Your task to perform on an android device: turn off notifications settings in the gmail app Image 0: 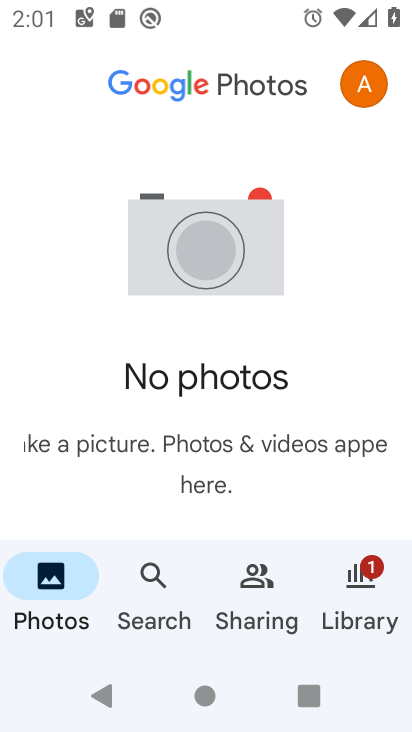
Step 0: press home button
Your task to perform on an android device: turn off notifications settings in the gmail app Image 1: 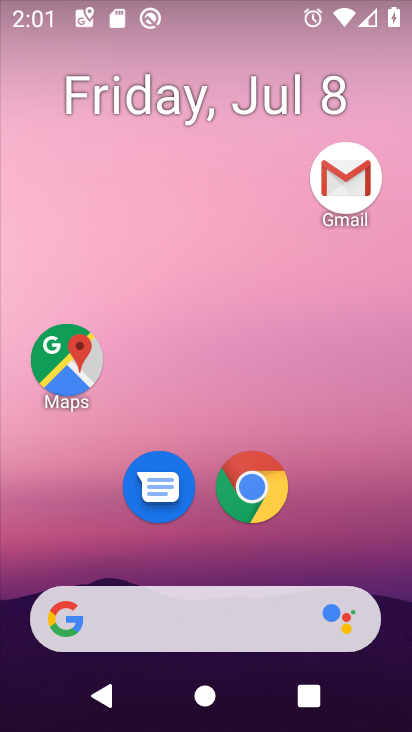
Step 1: drag from (360, 531) to (359, 107)
Your task to perform on an android device: turn off notifications settings in the gmail app Image 2: 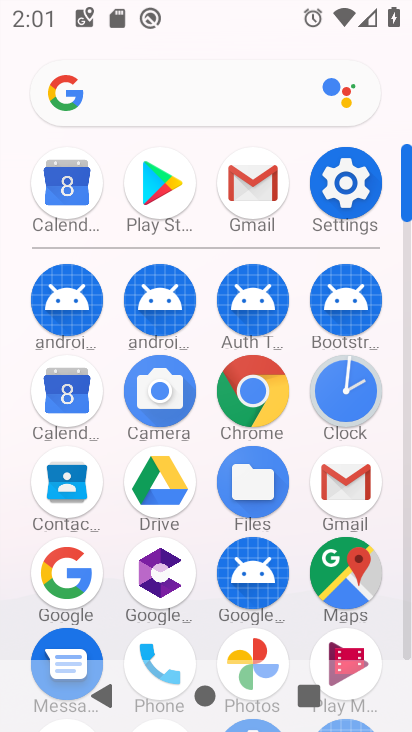
Step 2: click (348, 469)
Your task to perform on an android device: turn off notifications settings in the gmail app Image 3: 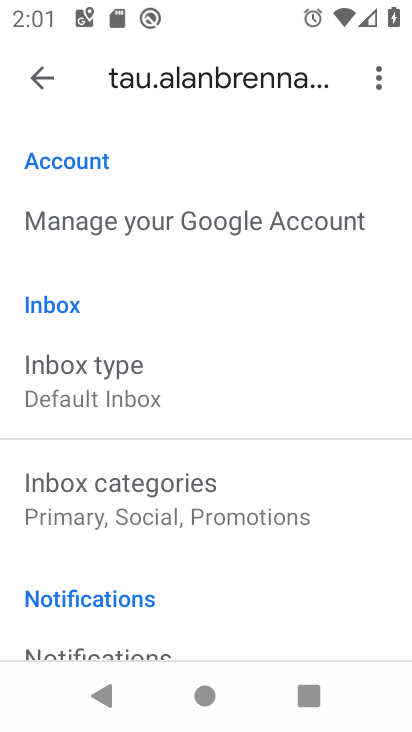
Step 3: drag from (345, 496) to (351, 390)
Your task to perform on an android device: turn off notifications settings in the gmail app Image 4: 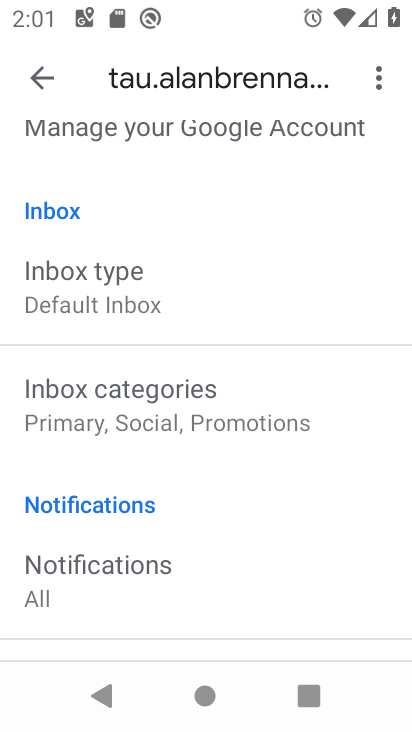
Step 4: drag from (368, 501) to (369, 407)
Your task to perform on an android device: turn off notifications settings in the gmail app Image 5: 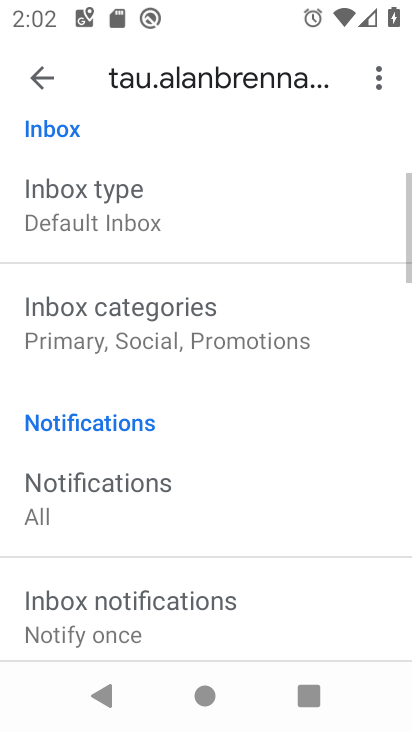
Step 5: drag from (353, 504) to (344, 404)
Your task to perform on an android device: turn off notifications settings in the gmail app Image 6: 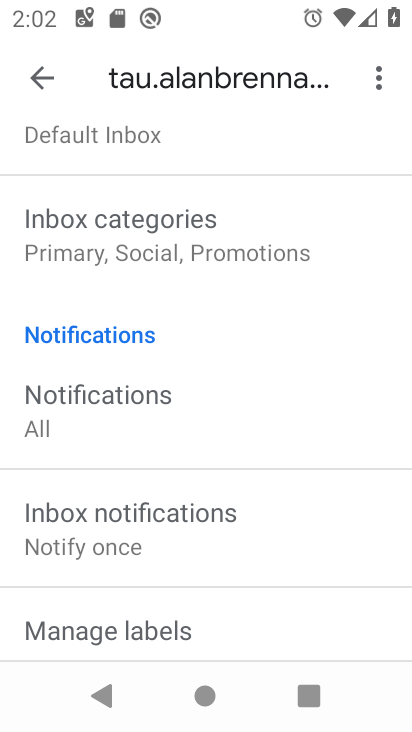
Step 6: drag from (343, 542) to (341, 471)
Your task to perform on an android device: turn off notifications settings in the gmail app Image 7: 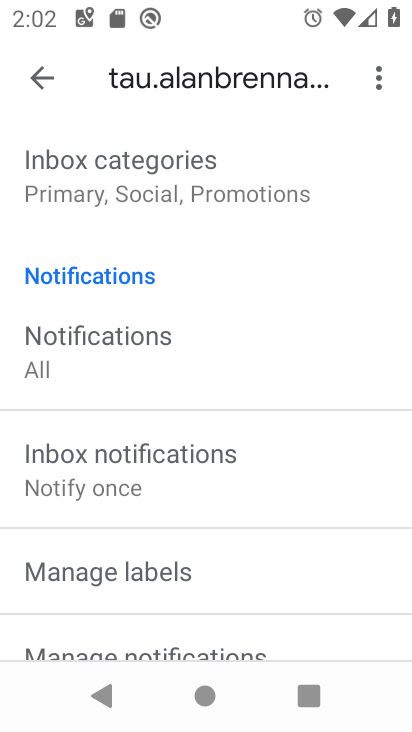
Step 7: drag from (337, 556) to (339, 453)
Your task to perform on an android device: turn off notifications settings in the gmail app Image 8: 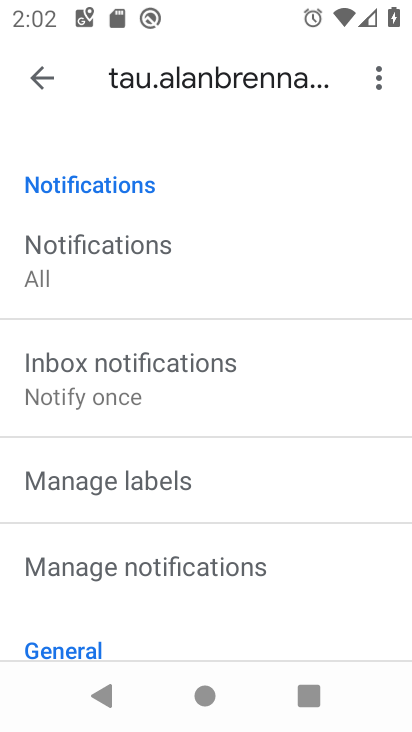
Step 8: drag from (338, 526) to (360, 428)
Your task to perform on an android device: turn off notifications settings in the gmail app Image 9: 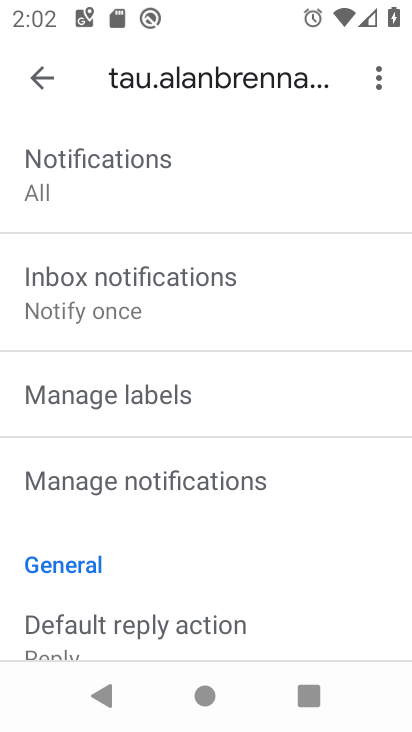
Step 9: drag from (346, 521) to (363, 434)
Your task to perform on an android device: turn off notifications settings in the gmail app Image 10: 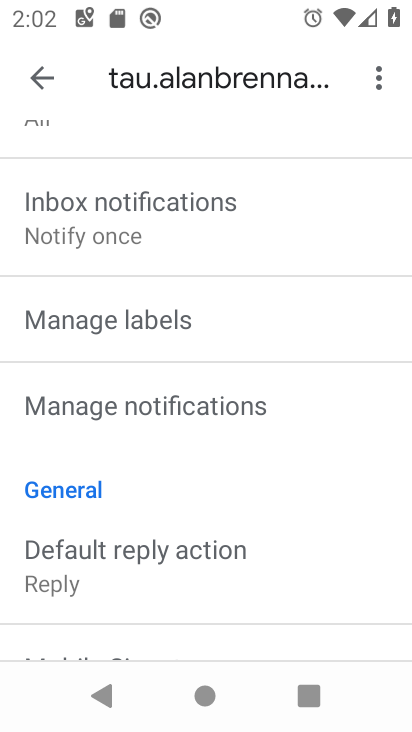
Step 10: click (328, 416)
Your task to perform on an android device: turn off notifications settings in the gmail app Image 11: 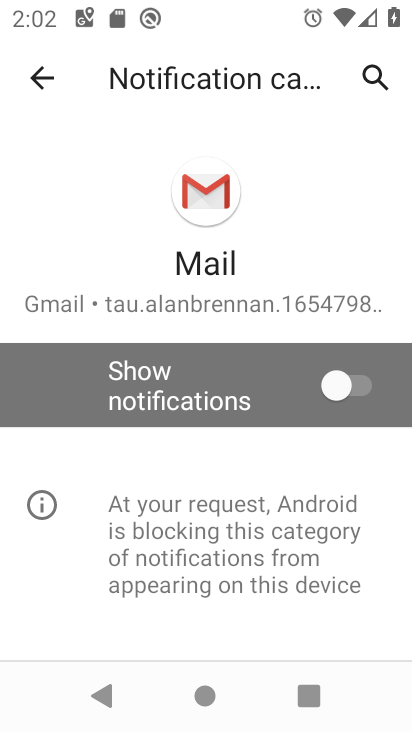
Step 11: task complete